Your task to perform on an android device: Clear the cart on costco.com. Image 0: 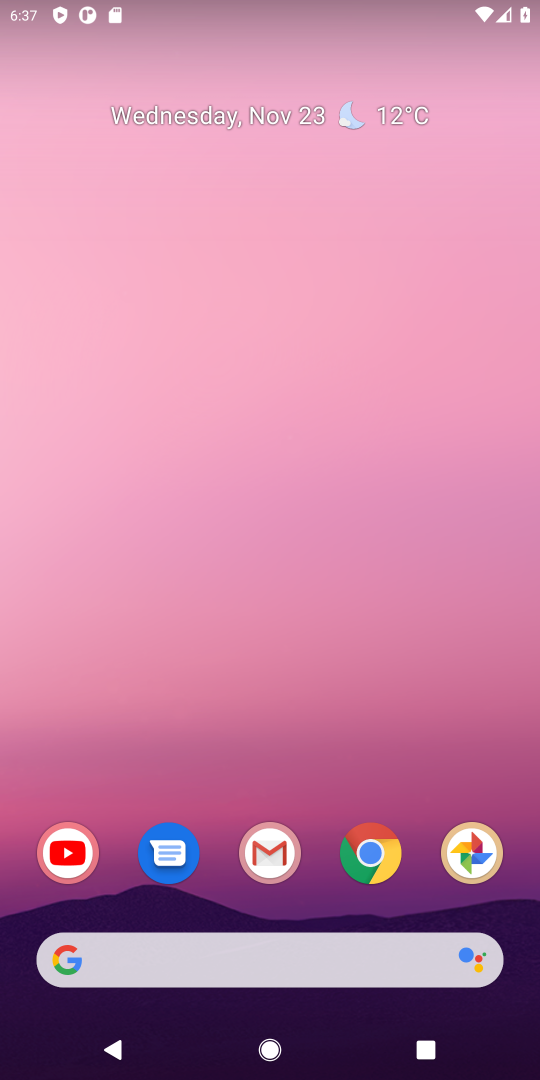
Step 0: click (379, 874)
Your task to perform on an android device: Clear the cart on costco.com. Image 1: 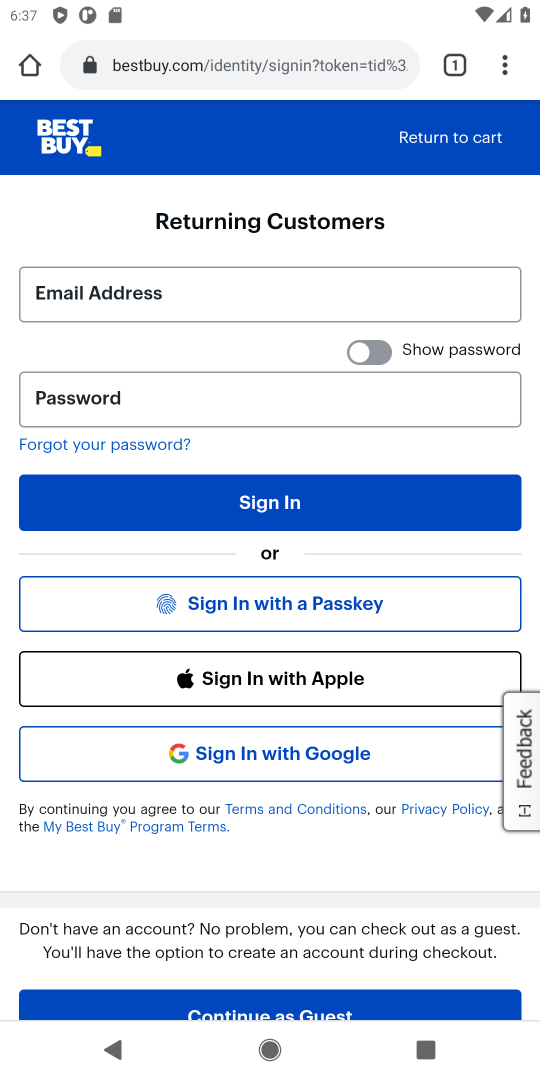
Step 1: click (230, 59)
Your task to perform on an android device: Clear the cart on costco.com. Image 2: 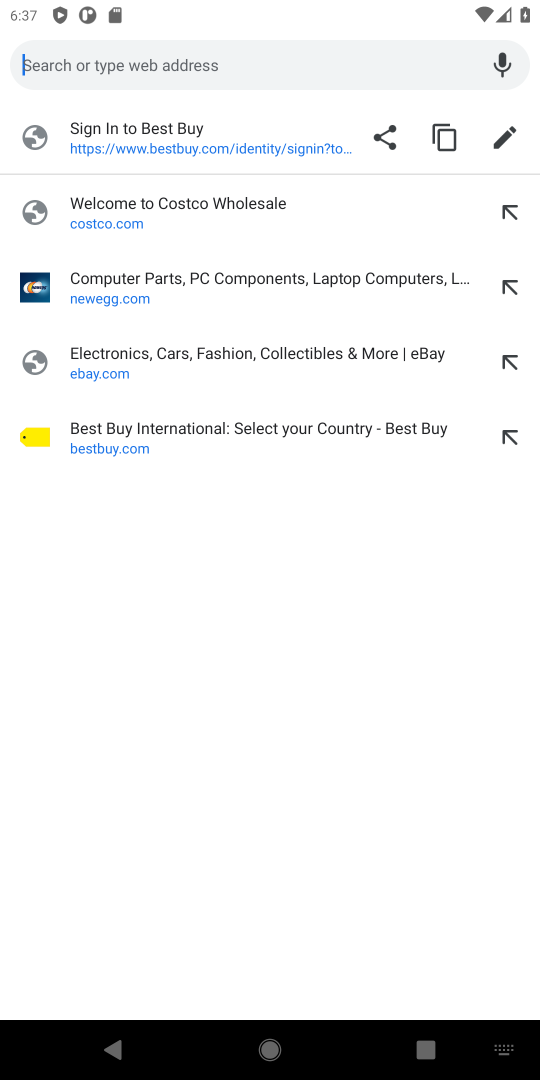
Step 2: click (106, 219)
Your task to perform on an android device: Clear the cart on costco.com. Image 3: 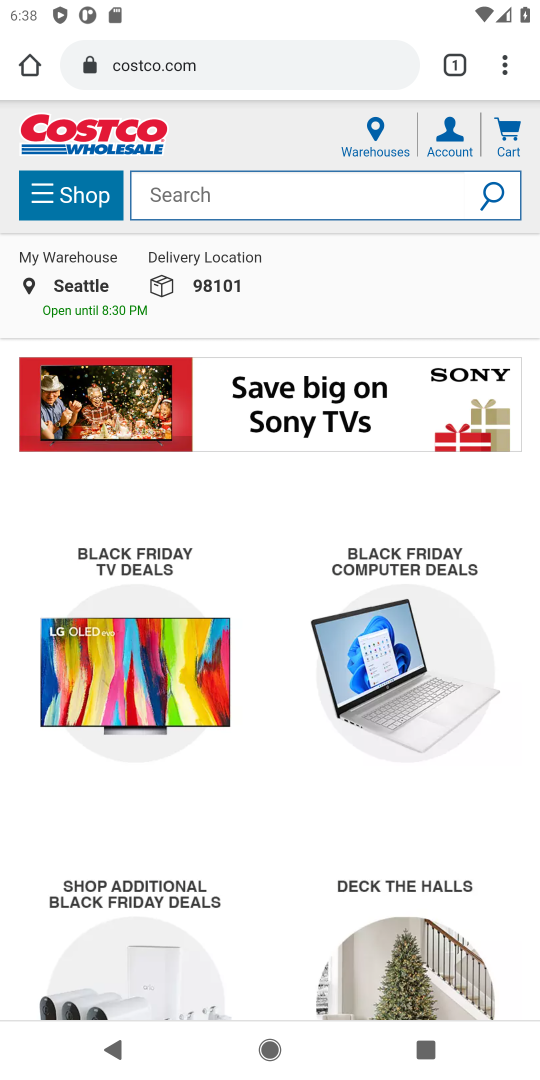
Step 3: click (503, 141)
Your task to perform on an android device: Clear the cart on costco.com. Image 4: 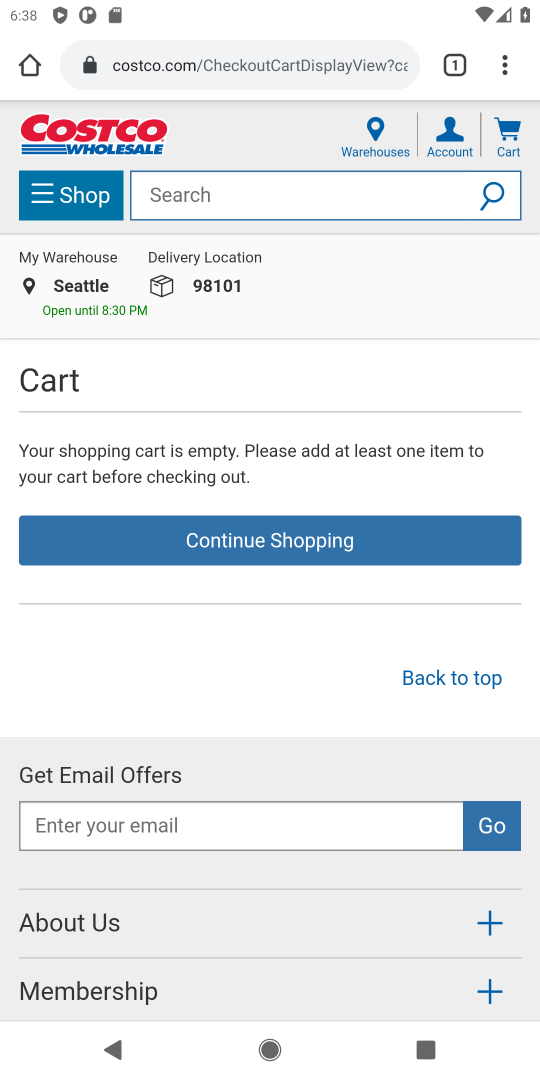
Step 4: task complete